Your task to perform on an android device: turn notification dots on Image 0: 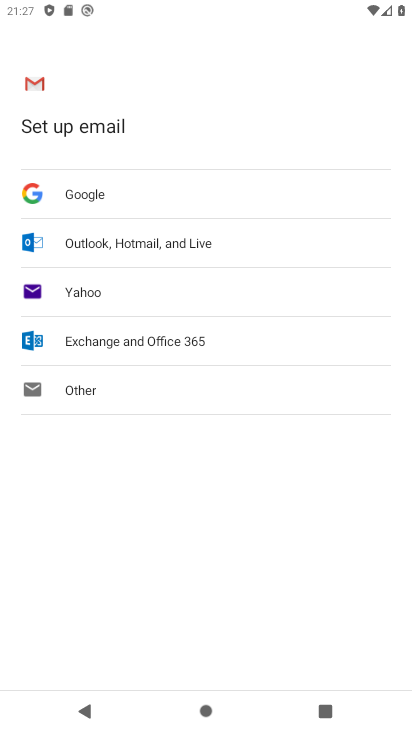
Step 0: press back button
Your task to perform on an android device: turn notification dots on Image 1: 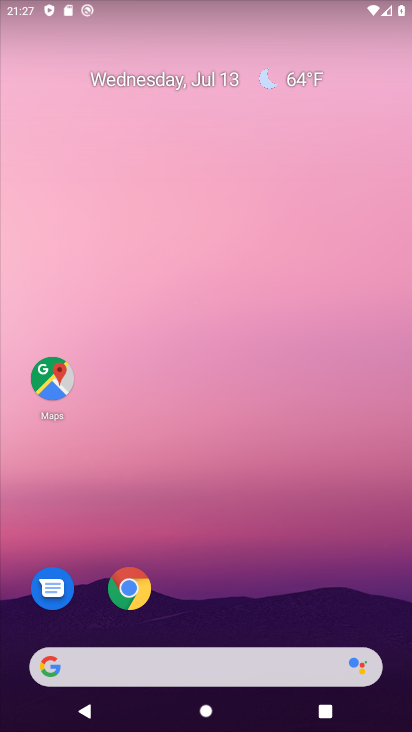
Step 1: drag from (222, 621) to (322, 21)
Your task to perform on an android device: turn notification dots on Image 2: 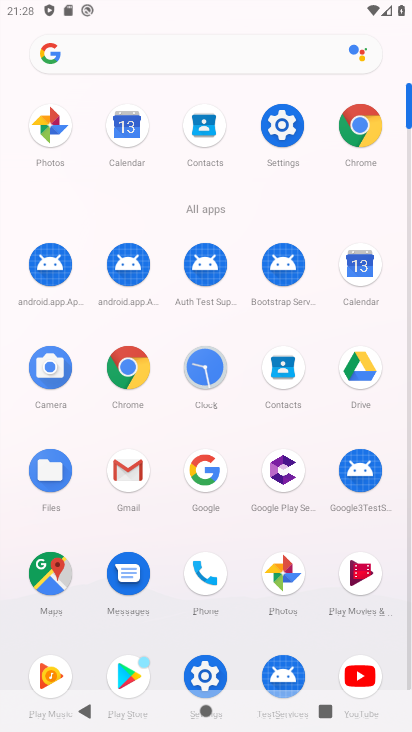
Step 2: click (276, 114)
Your task to perform on an android device: turn notification dots on Image 3: 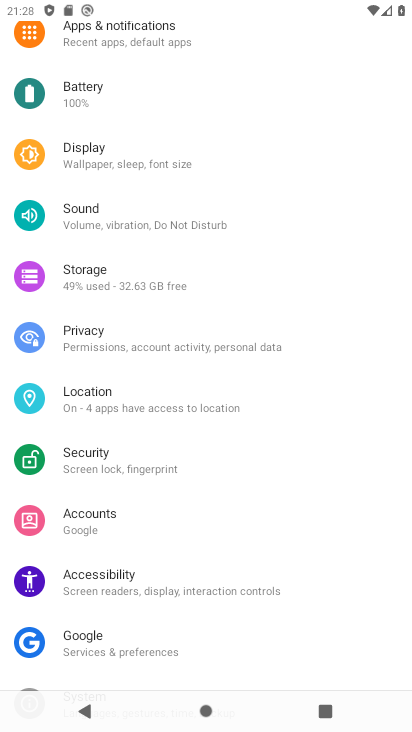
Step 3: click (142, 28)
Your task to perform on an android device: turn notification dots on Image 4: 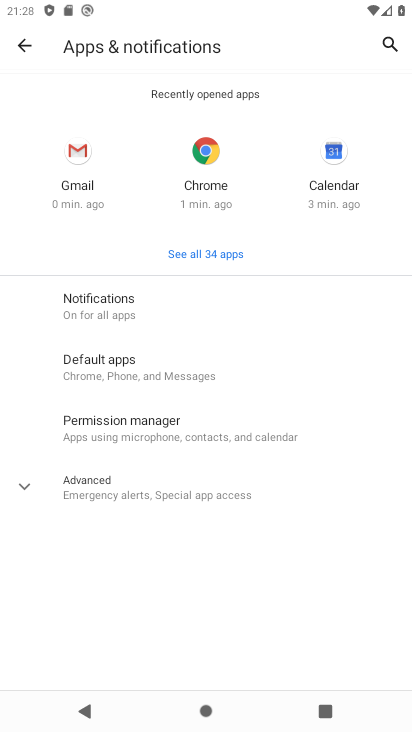
Step 4: click (112, 303)
Your task to perform on an android device: turn notification dots on Image 5: 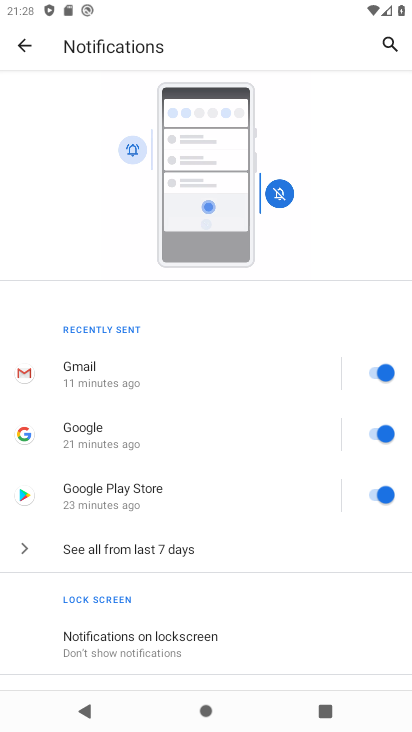
Step 5: drag from (202, 642) to (345, 123)
Your task to perform on an android device: turn notification dots on Image 6: 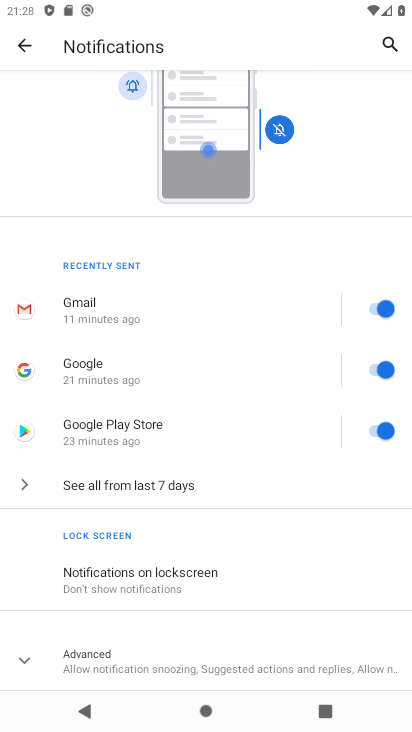
Step 6: drag from (241, 646) to (303, 196)
Your task to perform on an android device: turn notification dots on Image 7: 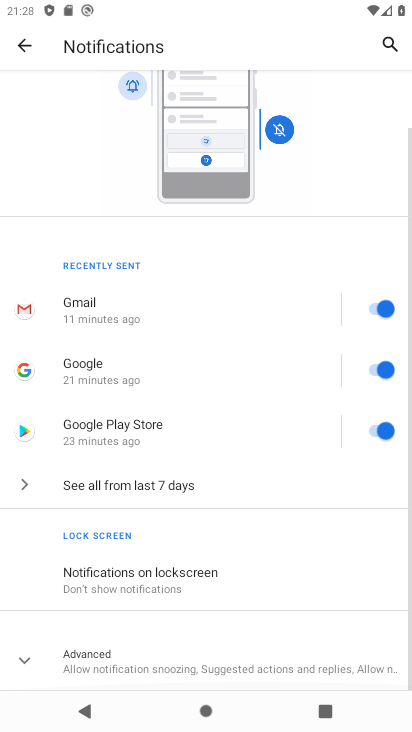
Step 7: click (151, 660)
Your task to perform on an android device: turn notification dots on Image 8: 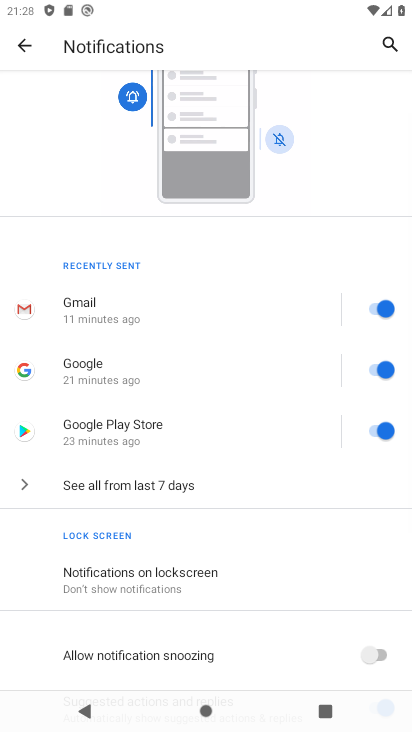
Step 8: task complete